Your task to perform on an android device: open device folders in google photos Image 0: 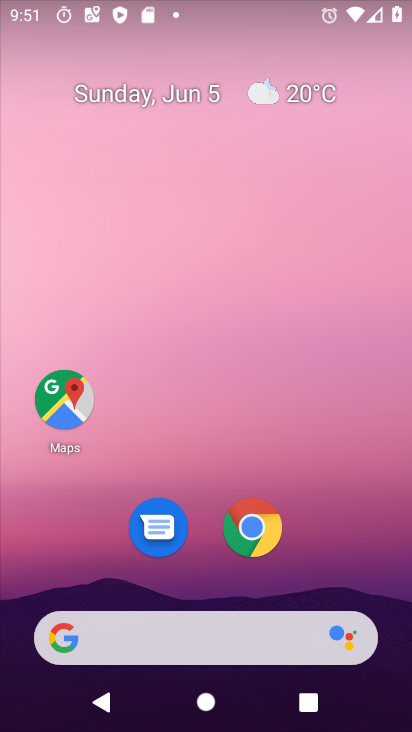
Step 0: drag from (314, 517) to (226, 10)
Your task to perform on an android device: open device folders in google photos Image 1: 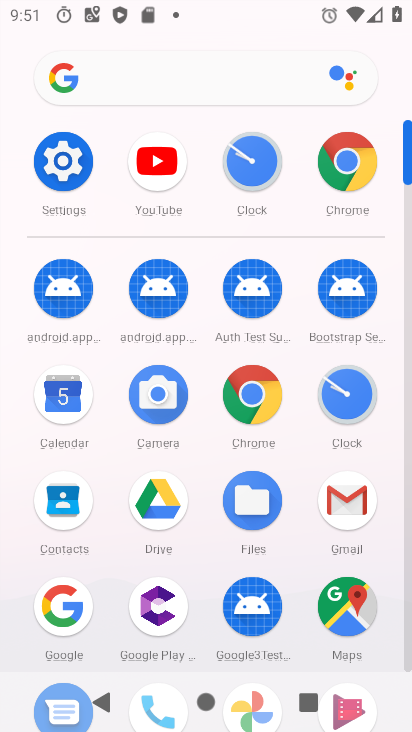
Step 1: drag from (403, 569) to (409, 159)
Your task to perform on an android device: open device folders in google photos Image 2: 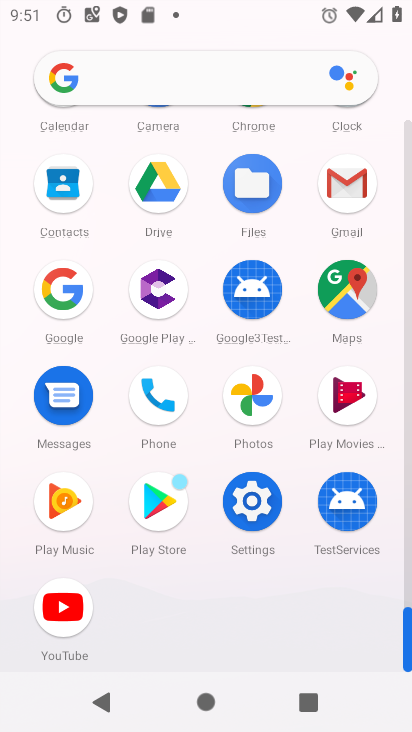
Step 2: click (254, 411)
Your task to perform on an android device: open device folders in google photos Image 3: 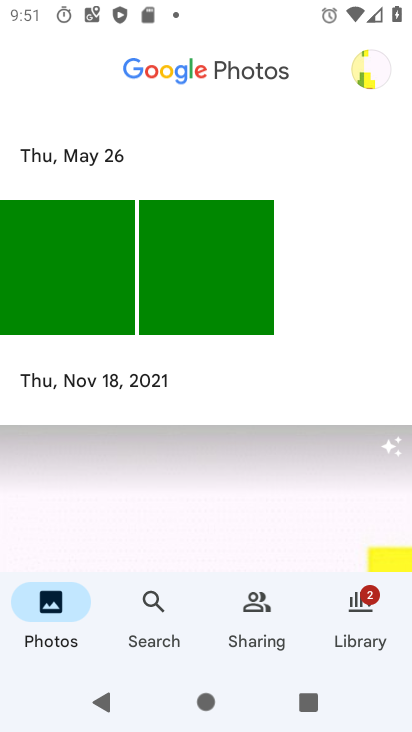
Step 3: click (362, 56)
Your task to perform on an android device: open device folders in google photos Image 4: 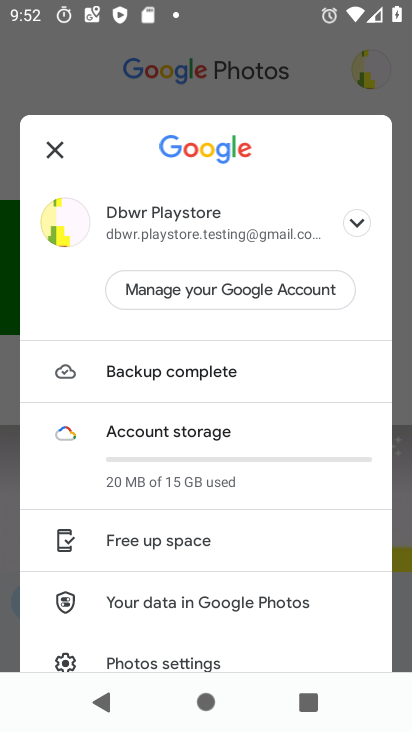
Step 4: task complete